Your task to perform on an android device: see tabs open on other devices in the chrome app Image 0: 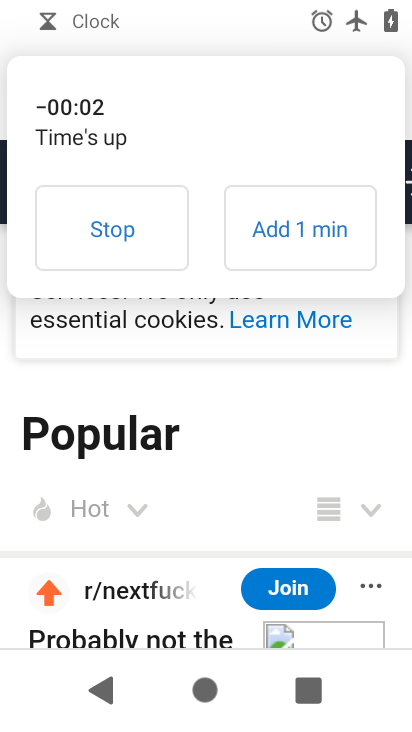
Step 0: click (106, 245)
Your task to perform on an android device: see tabs open on other devices in the chrome app Image 1: 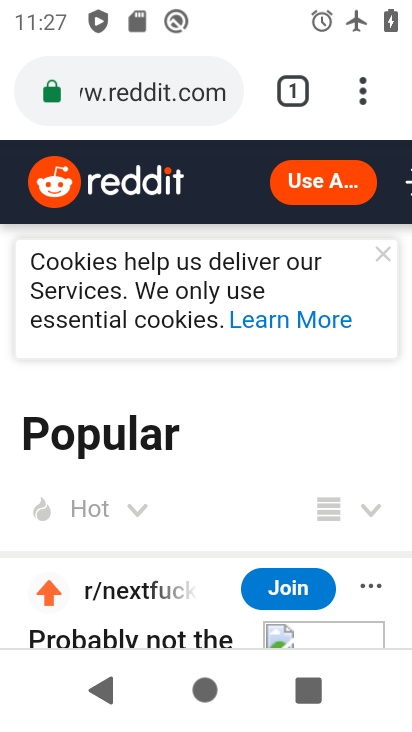
Step 1: click (350, 87)
Your task to perform on an android device: see tabs open on other devices in the chrome app Image 2: 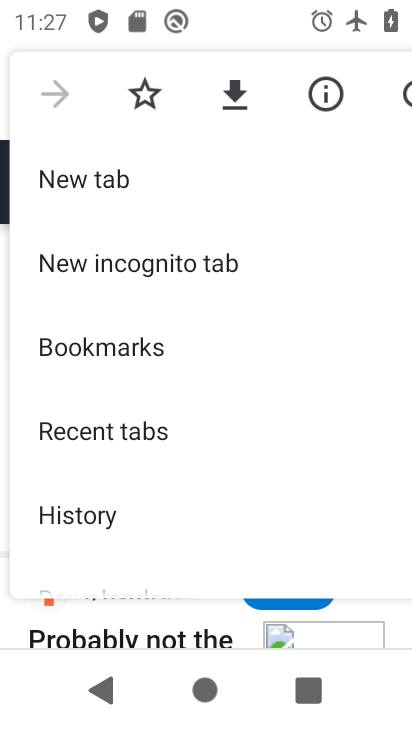
Step 2: click (132, 442)
Your task to perform on an android device: see tabs open on other devices in the chrome app Image 3: 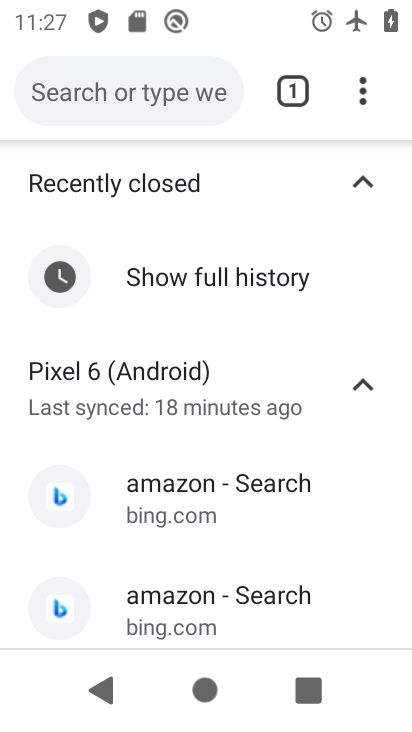
Step 3: task complete